Your task to perform on an android device: turn on javascript in the chrome app Image 0: 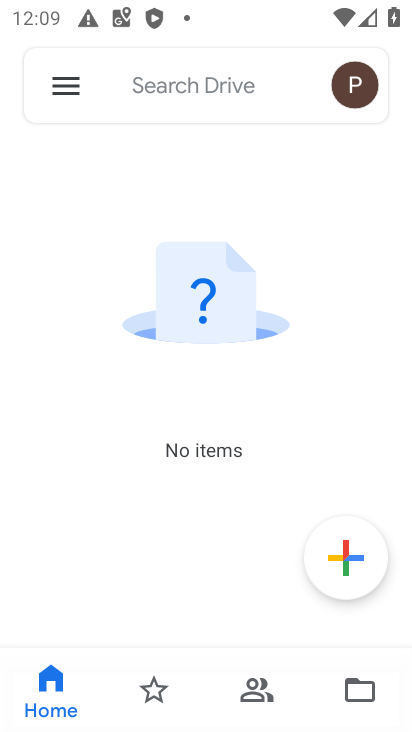
Step 0: press home button
Your task to perform on an android device: turn on javascript in the chrome app Image 1: 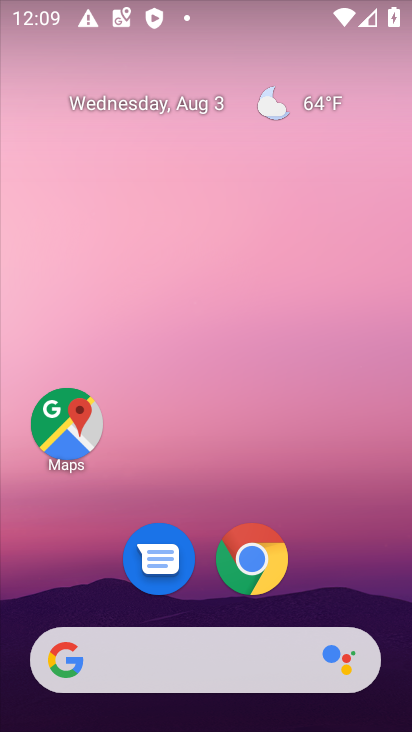
Step 1: click (254, 549)
Your task to perform on an android device: turn on javascript in the chrome app Image 2: 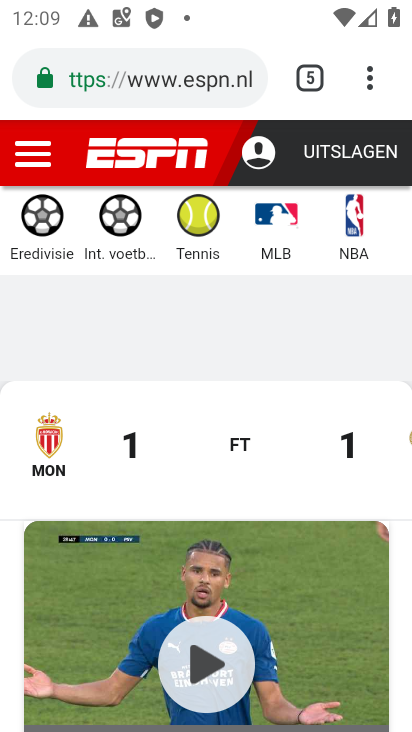
Step 2: click (371, 82)
Your task to perform on an android device: turn on javascript in the chrome app Image 3: 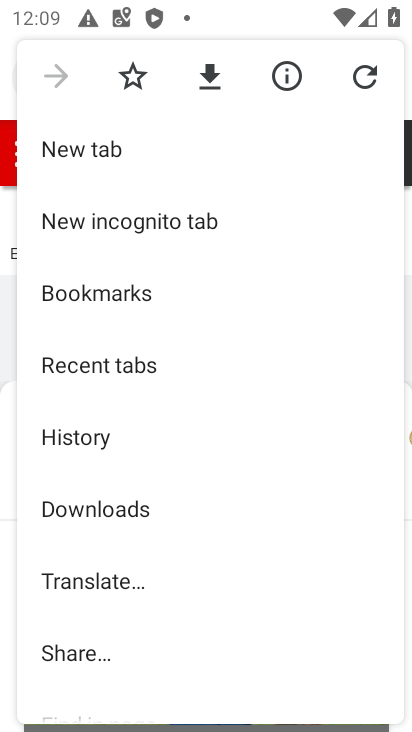
Step 3: drag from (63, 670) to (59, 326)
Your task to perform on an android device: turn on javascript in the chrome app Image 4: 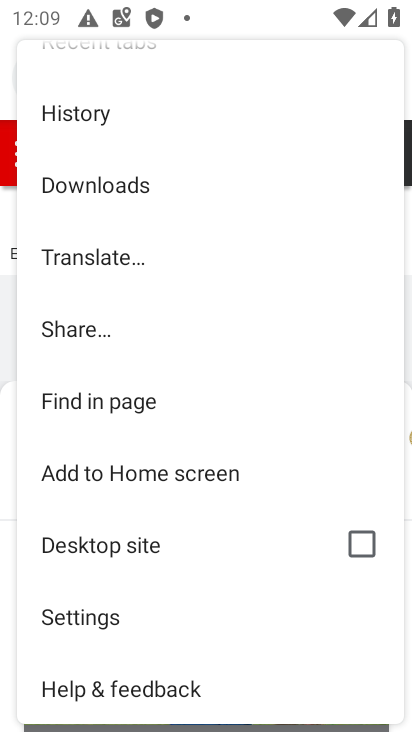
Step 4: click (94, 616)
Your task to perform on an android device: turn on javascript in the chrome app Image 5: 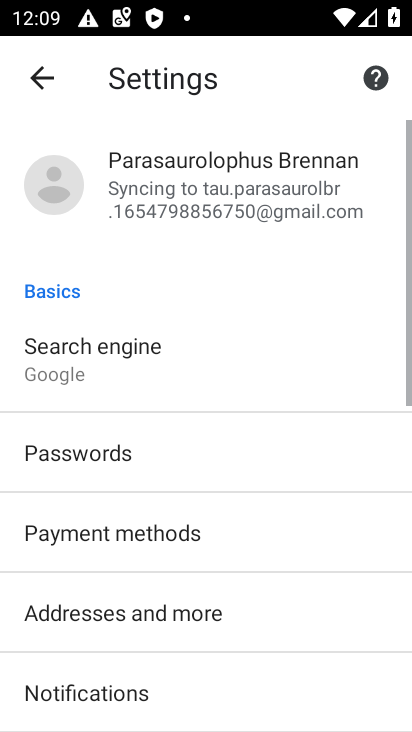
Step 5: drag from (132, 669) to (131, 403)
Your task to perform on an android device: turn on javascript in the chrome app Image 6: 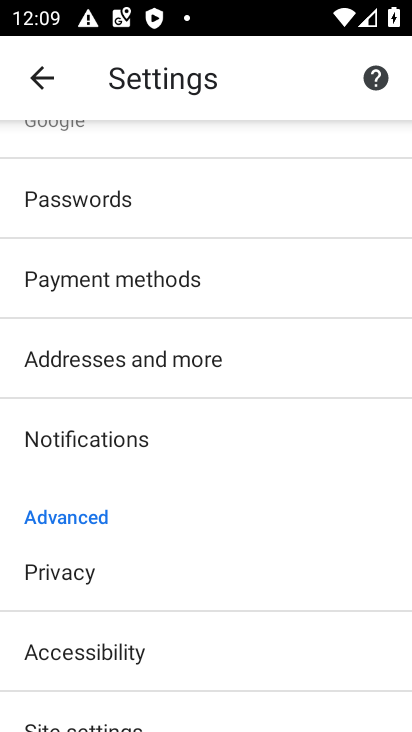
Step 6: drag from (108, 611) to (108, 315)
Your task to perform on an android device: turn on javascript in the chrome app Image 7: 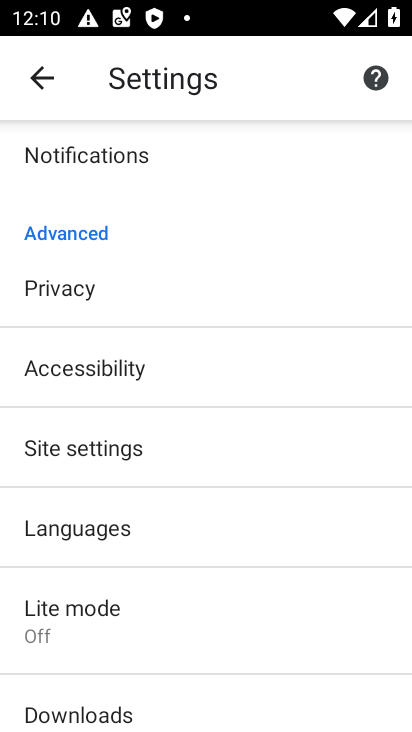
Step 7: click (116, 438)
Your task to perform on an android device: turn on javascript in the chrome app Image 8: 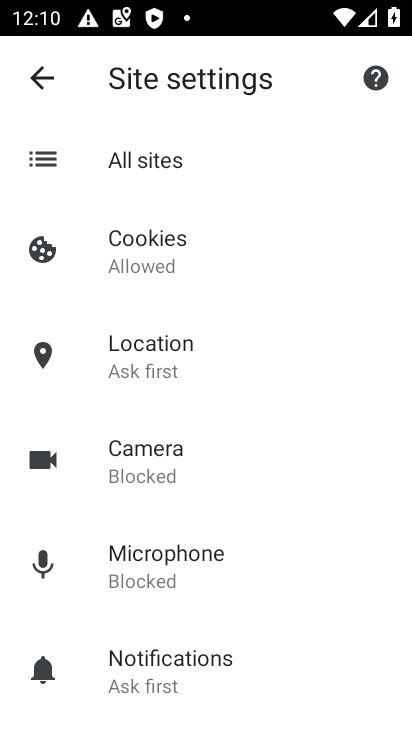
Step 8: drag from (167, 643) to (158, 267)
Your task to perform on an android device: turn on javascript in the chrome app Image 9: 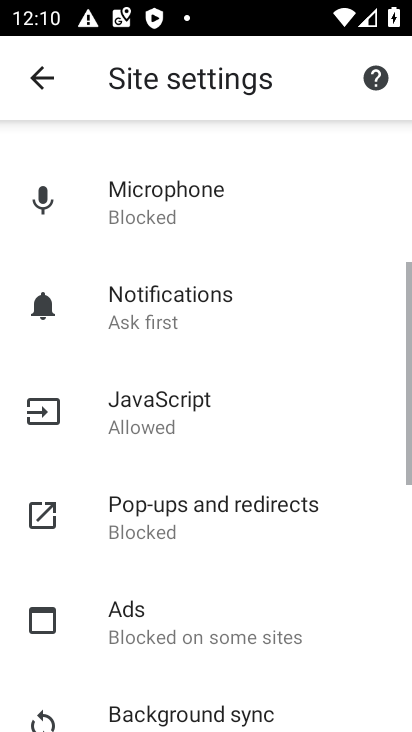
Step 9: click (159, 407)
Your task to perform on an android device: turn on javascript in the chrome app Image 10: 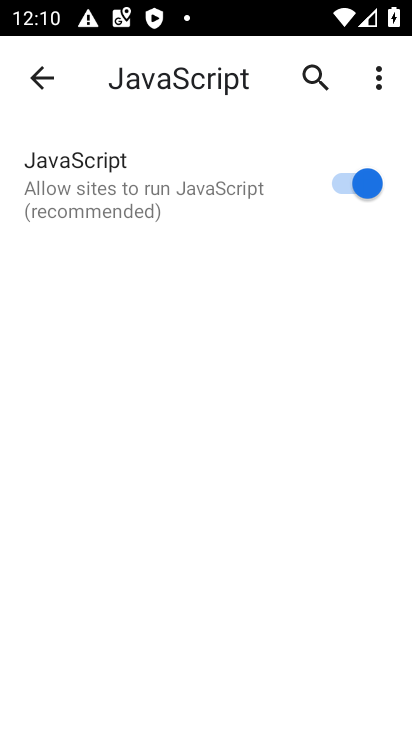
Step 10: task complete